Your task to perform on an android device: Go to battery settings Image 0: 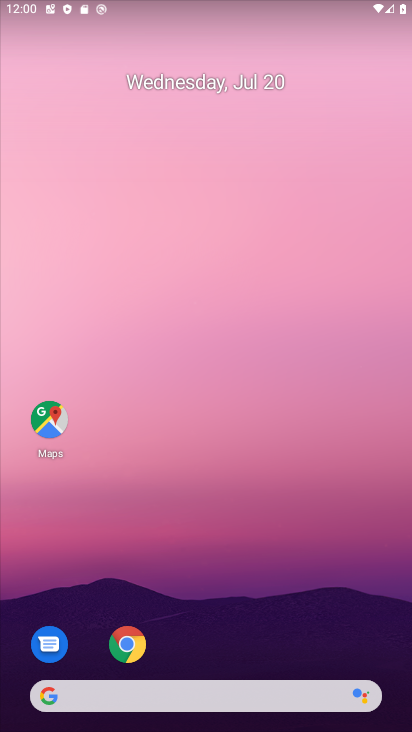
Step 0: press home button
Your task to perform on an android device: Go to battery settings Image 1: 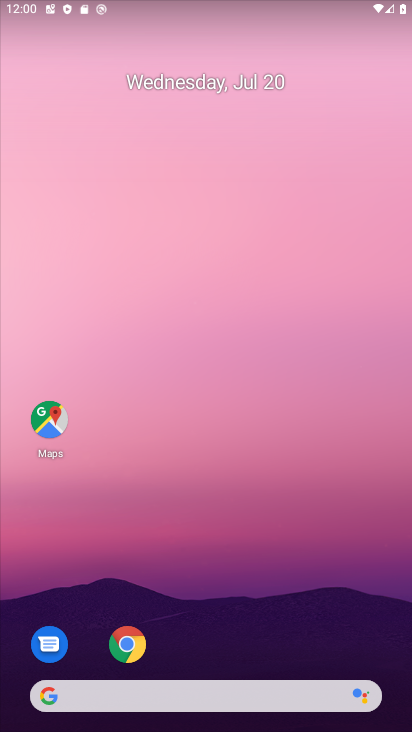
Step 1: drag from (315, 671) to (266, 34)
Your task to perform on an android device: Go to battery settings Image 2: 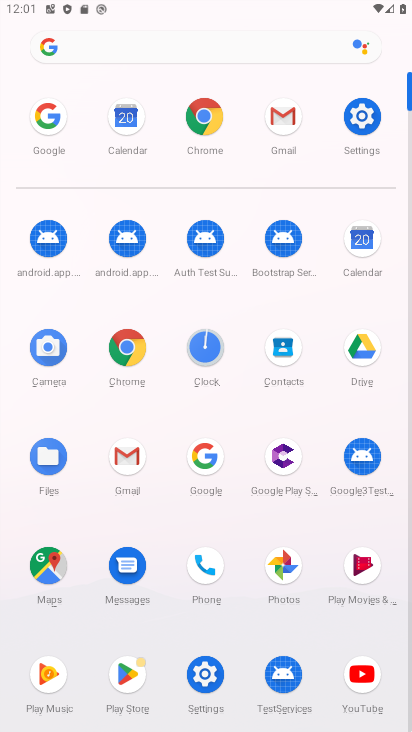
Step 2: click (353, 120)
Your task to perform on an android device: Go to battery settings Image 3: 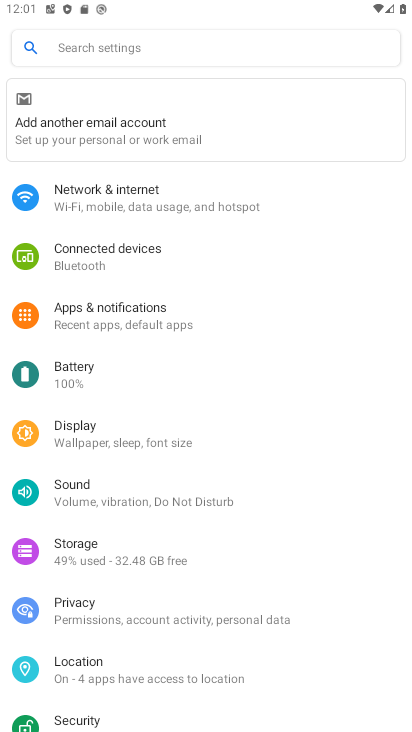
Step 3: click (13, 379)
Your task to perform on an android device: Go to battery settings Image 4: 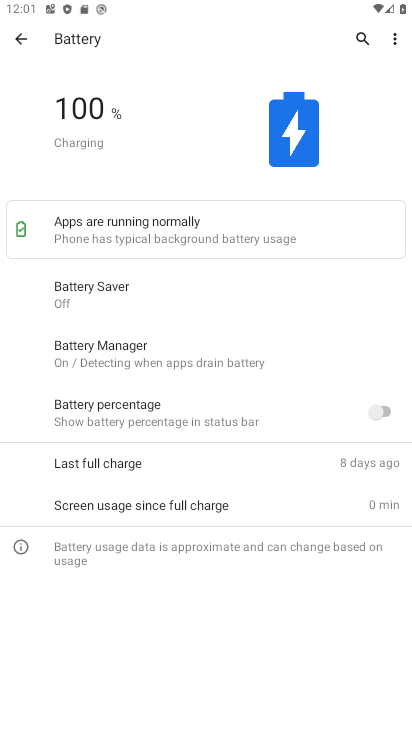
Step 4: task complete